Your task to perform on an android device: Show me productivity apps on the Play Store Image 0: 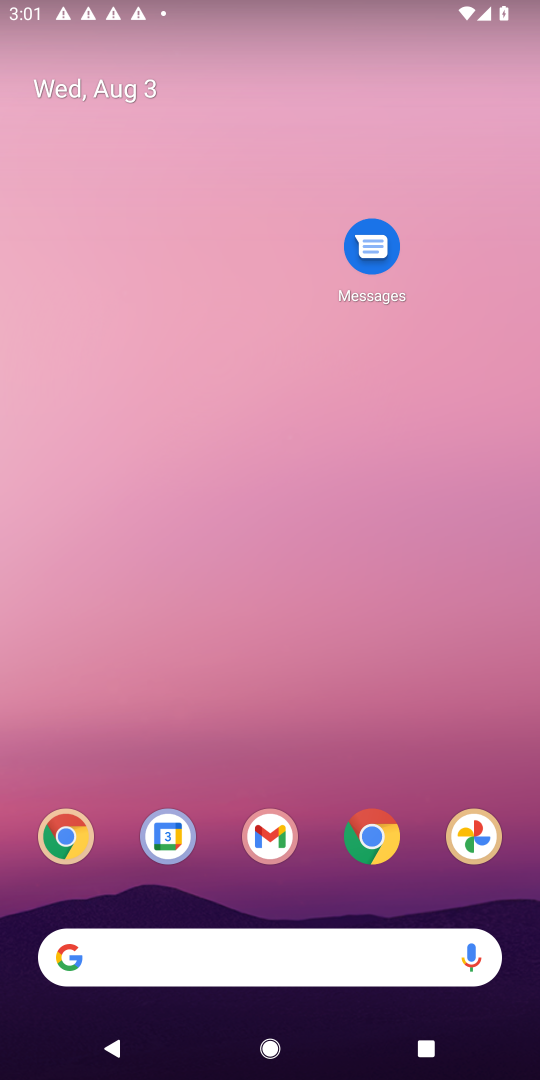
Step 0: drag from (44, 1009) to (388, 61)
Your task to perform on an android device: Show me productivity apps on the Play Store Image 1: 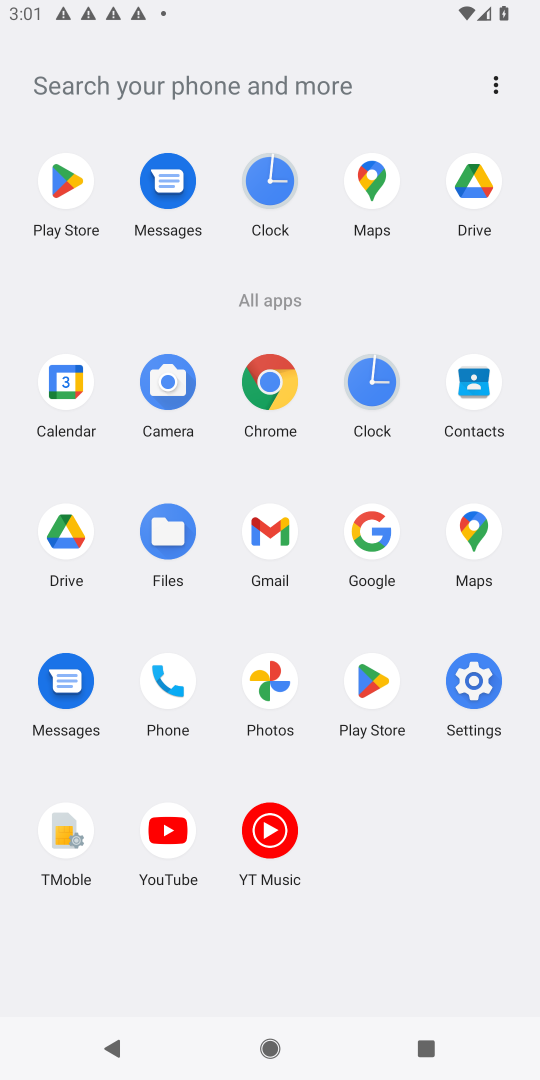
Step 1: click (372, 668)
Your task to perform on an android device: Show me productivity apps on the Play Store Image 2: 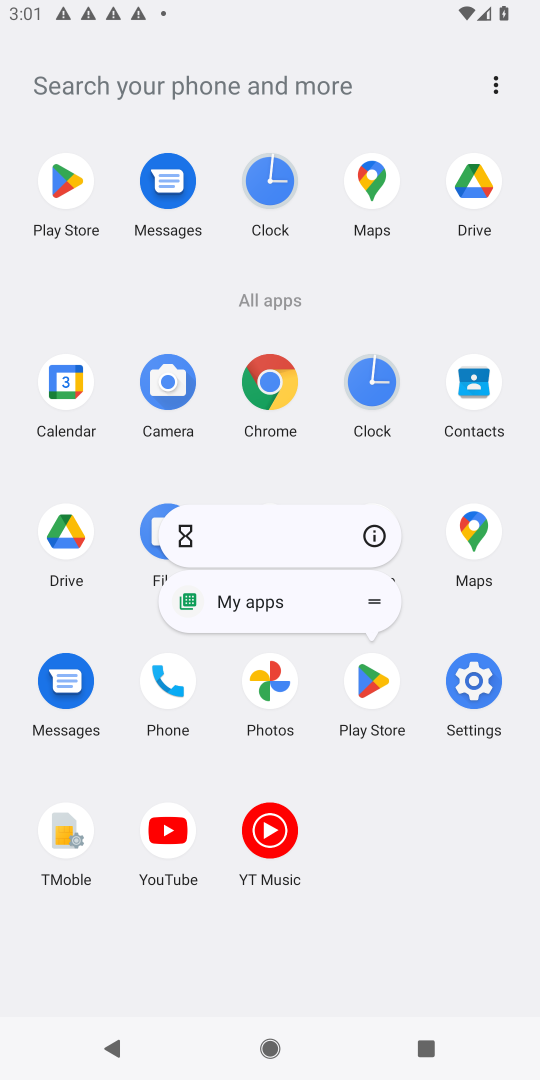
Step 2: click (359, 705)
Your task to perform on an android device: Show me productivity apps on the Play Store Image 3: 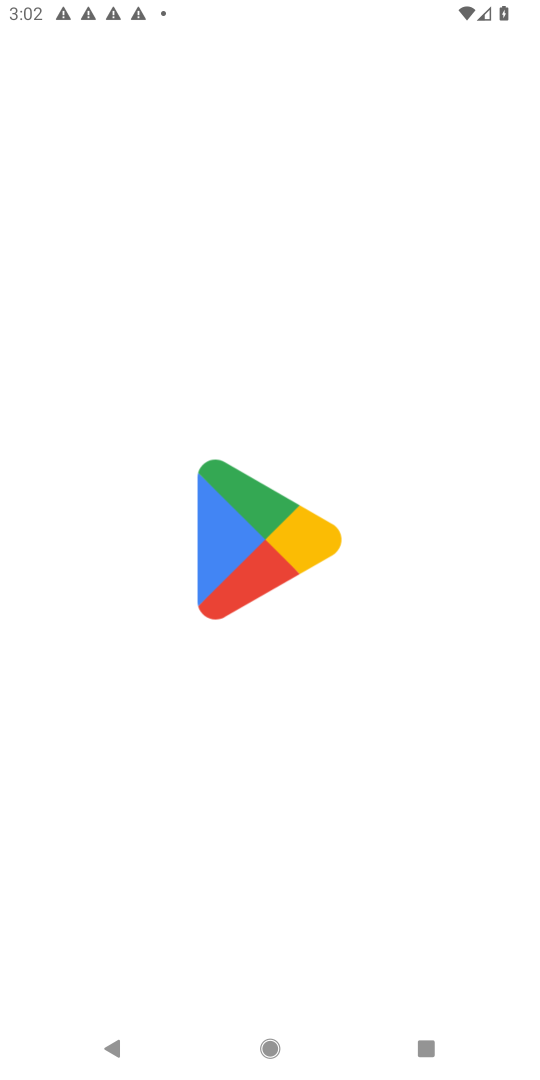
Step 3: task complete